Your task to perform on an android device: Open Reddit.com Image 0: 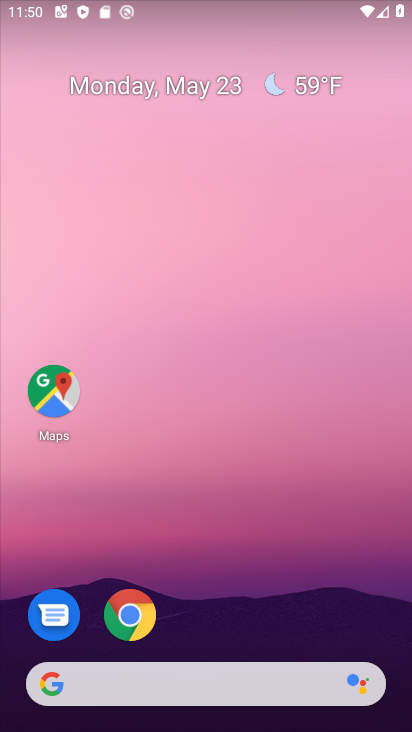
Step 0: drag from (228, 577) to (227, 62)
Your task to perform on an android device: Open Reddit.com Image 1: 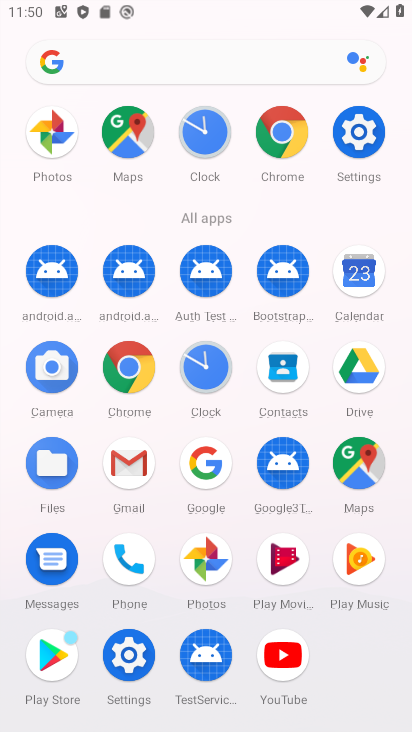
Step 1: click (124, 364)
Your task to perform on an android device: Open Reddit.com Image 2: 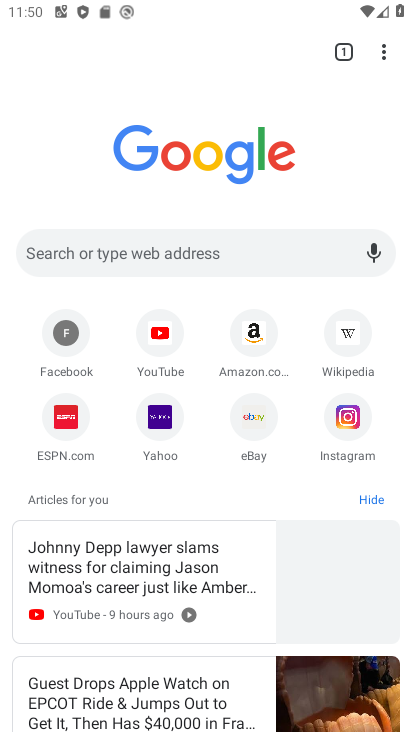
Step 2: click (245, 252)
Your task to perform on an android device: Open Reddit.com Image 3: 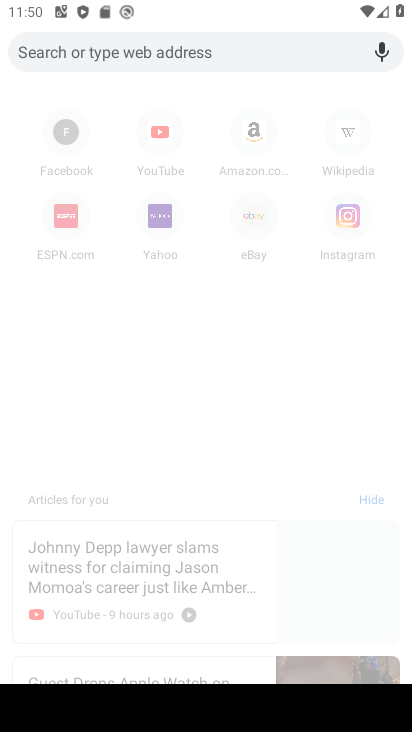
Step 3: type " Reddit.com"
Your task to perform on an android device: Open Reddit.com Image 4: 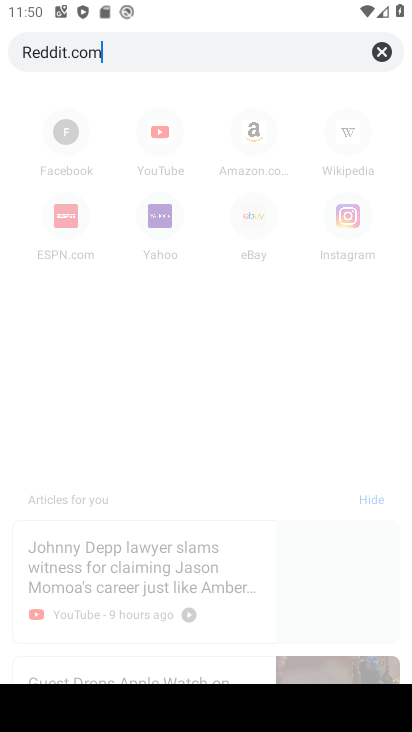
Step 4: type ""
Your task to perform on an android device: Open Reddit.com Image 5: 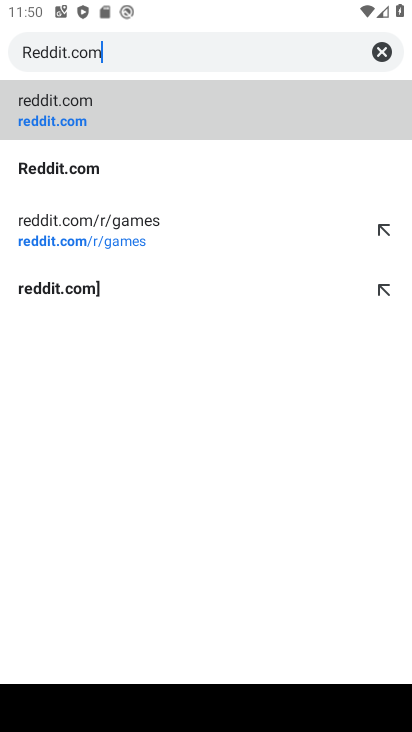
Step 5: click (165, 111)
Your task to perform on an android device: Open Reddit.com Image 6: 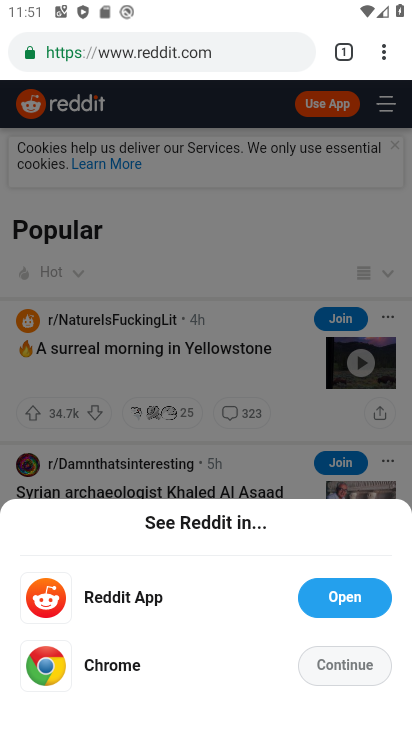
Step 6: task complete